Your task to perform on an android device: Go to calendar. Show me events next week Image 0: 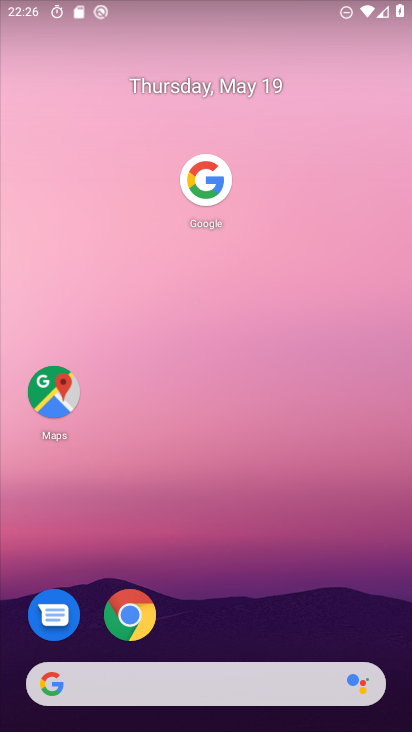
Step 0: drag from (217, 603) to (301, 85)
Your task to perform on an android device: Go to calendar. Show me events next week Image 1: 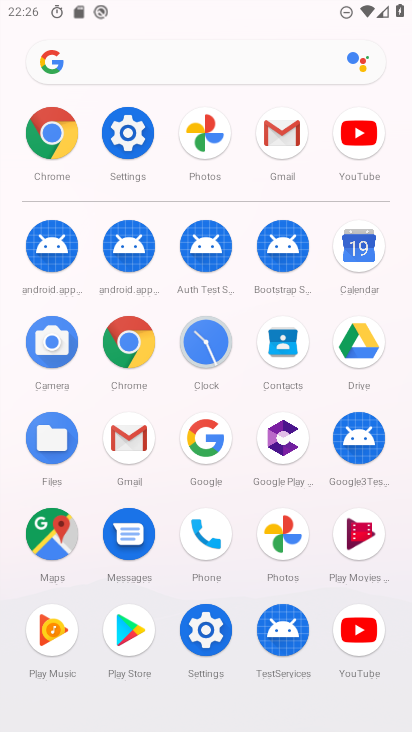
Step 1: click (360, 249)
Your task to perform on an android device: Go to calendar. Show me events next week Image 2: 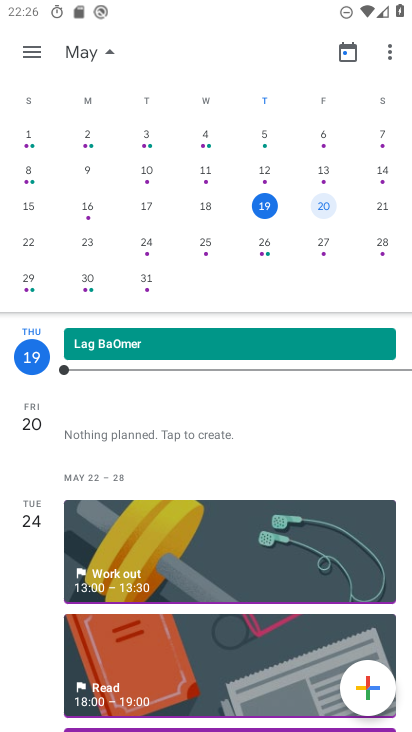
Step 2: click (207, 242)
Your task to perform on an android device: Go to calendar. Show me events next week Image 3: 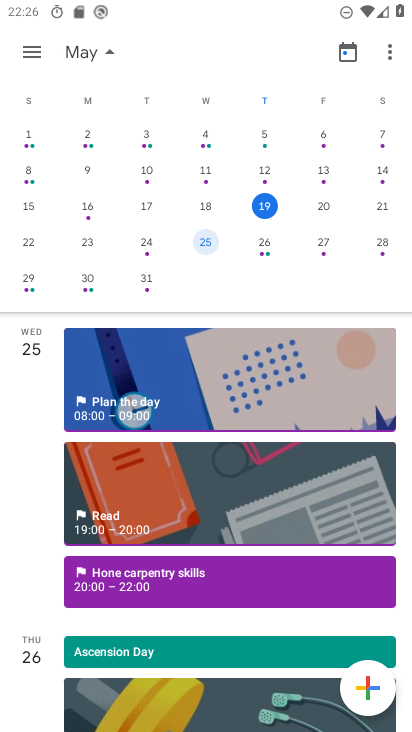
Step 3: task complete